Your task to perform on an android device: check the backup settings in the google photos Image 0: 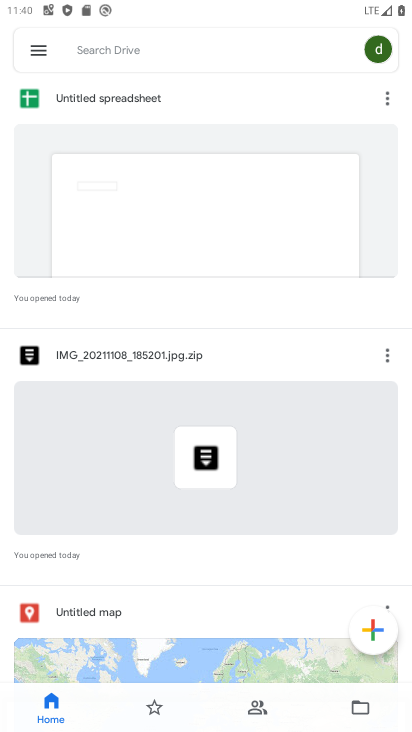
Step 0: press home button
Your task to perform on an android device: check the backup settings in the google photos Image 1: 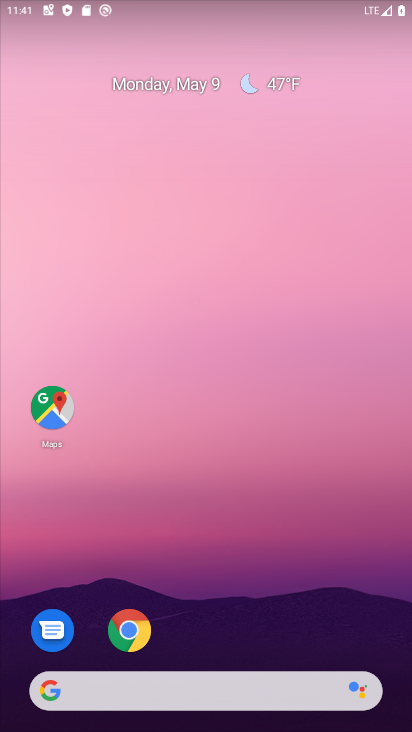
Step 1: drag from (129, 692) to (276, 116)
Your task to perform on an android device: check the backup settings in the google photos Image 2: 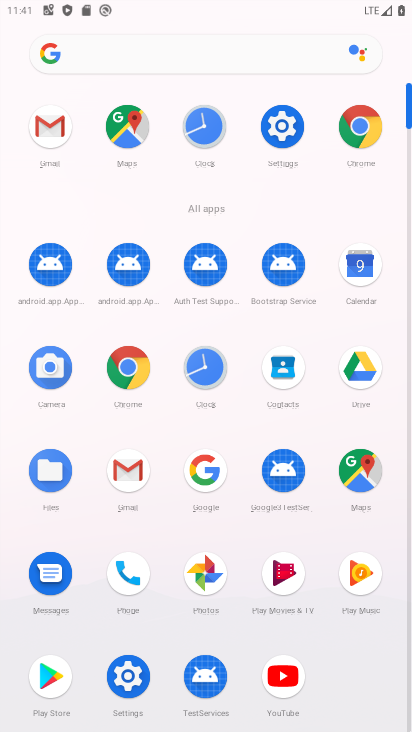
Step 2: click (213, 578)
Your task to perform on an android device: check the backup settings in the google photos Image 3: 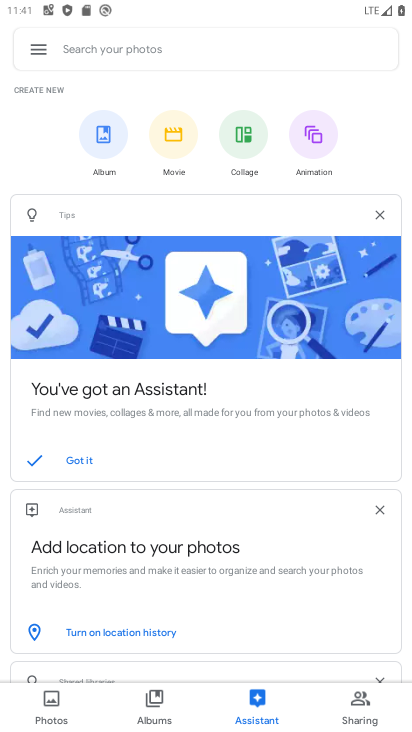
Step 3: click (37, 47)
Your task to perform on an android device: check the backup settings in the google photos Image 4: 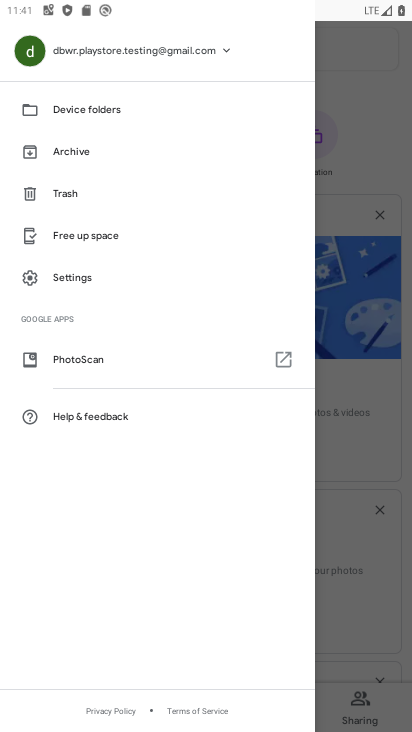
Step 4: click (78, 279)
Your task to perform on an android device: check the backup settings in the google photos Image 5: 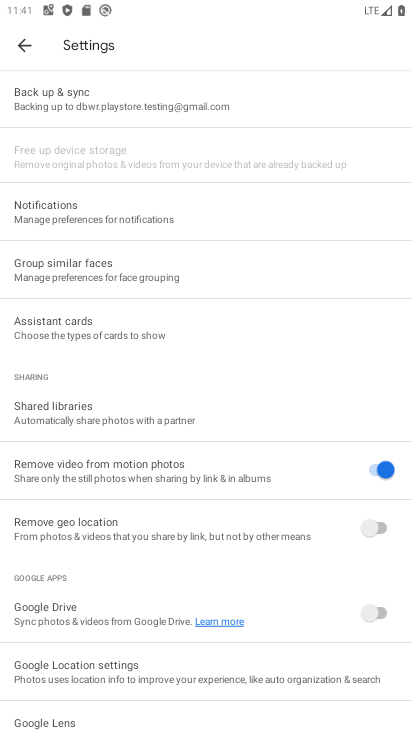
Step 5: click (170, 97)
Your task to perform on an android device: check the backup settings in the google photos Image 6: 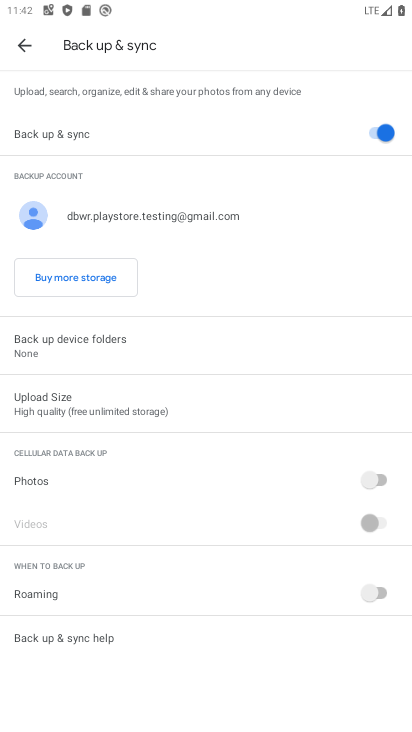
Step 6: task complete